Your task to perform on an android device: check storage Image 0: 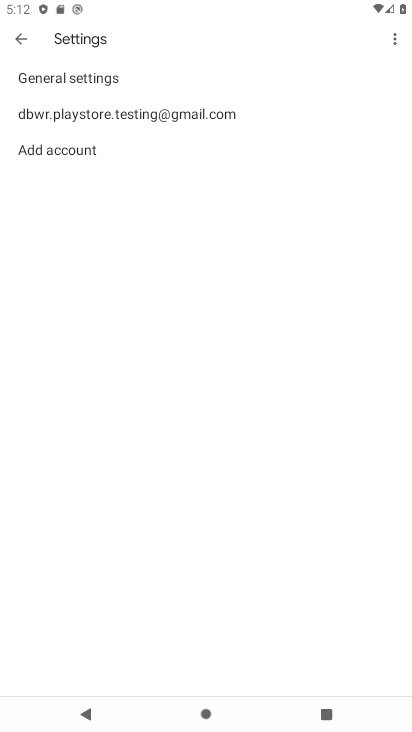
Step 0: press home button
Your task to perform on an android device: check storage Image 1: 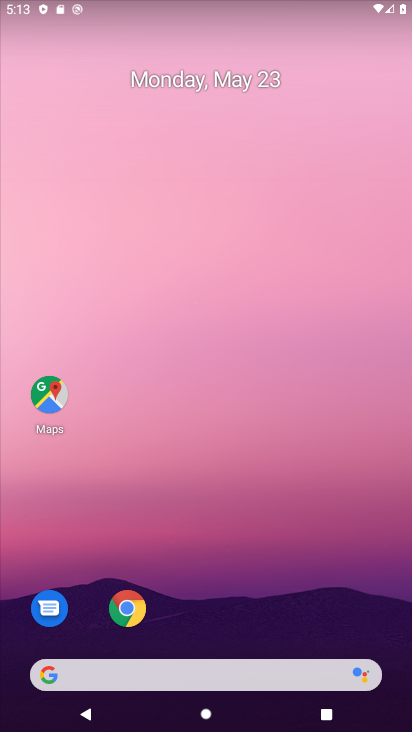
Step 1: drag from (54, 551) to (276, 123)
Your task to perform on an android device: check storage Image 2: 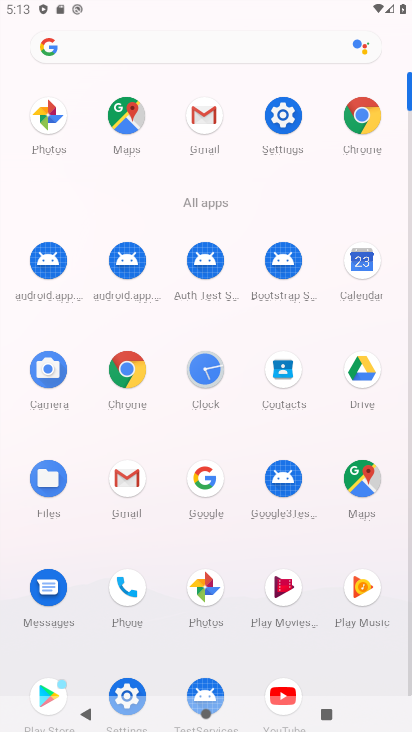
Step 2: click (280, 115)
Your task to perform on an android device: check storage Image 3: 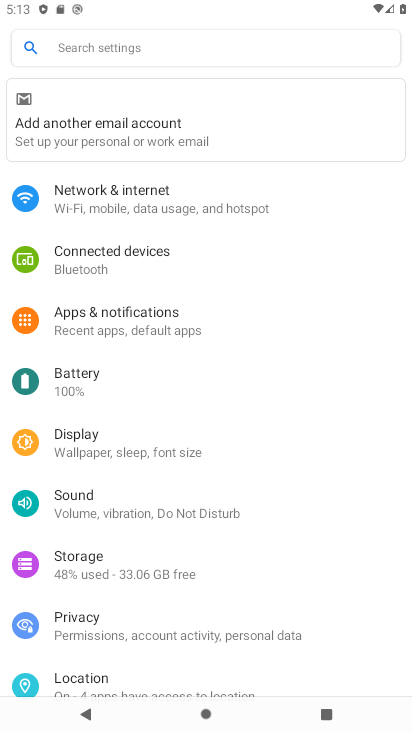
Step 3: click (91, 551)
Your task to perform on an android device: check storage Image 4: 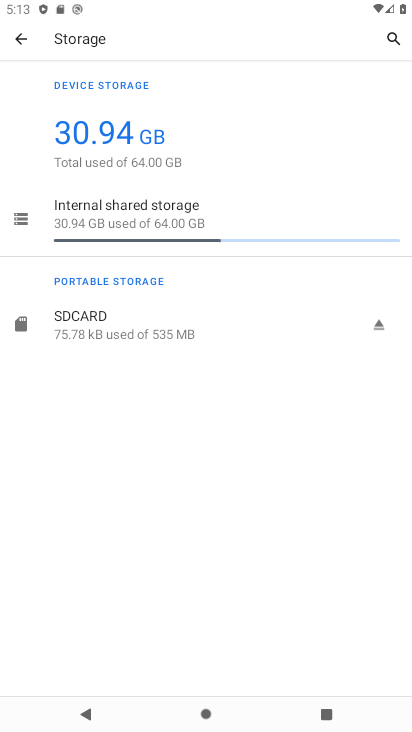
Step 4: task complete